Your task to perform on an android device: open a new tab in the chrome app Image 0: 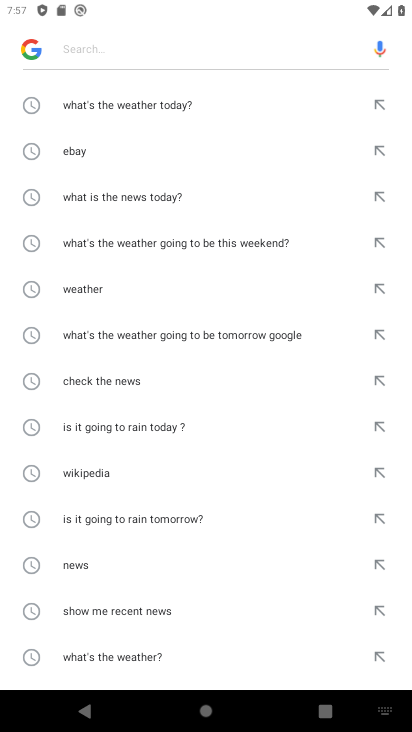
Step 0: press home button
Your task to perform on an android device: open a new tab in the chrome app Image 1: 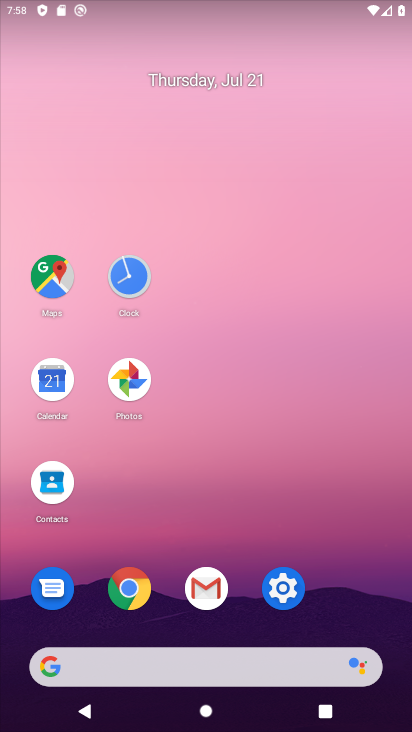
Step 1: click (129, 587)
Your task to perform on an android device: open a new tab in the chrome app Image 2: 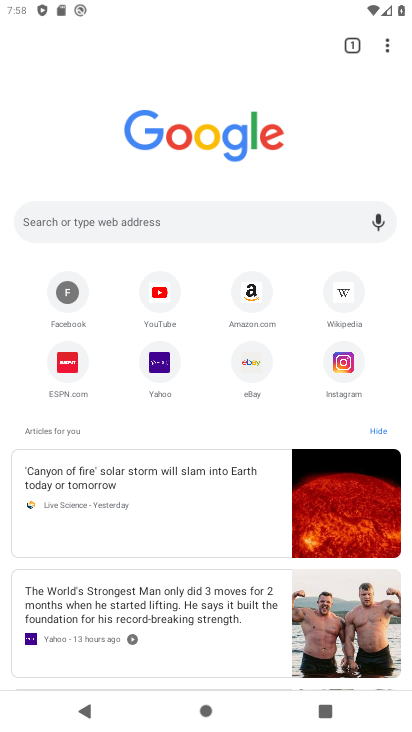
Step 2: click (388, 47)
Your task to perform on an android device: open a new tab in the chrome app Image 3: 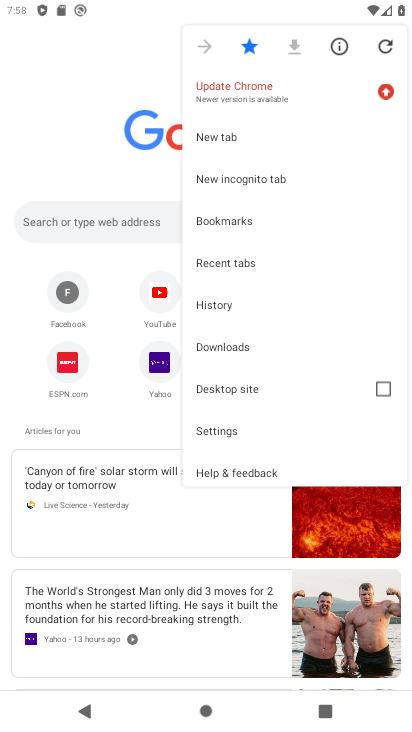
Step 3: click (221, 134)
Your task to perform on an android device: open a new tab in the chrome app Image 4: 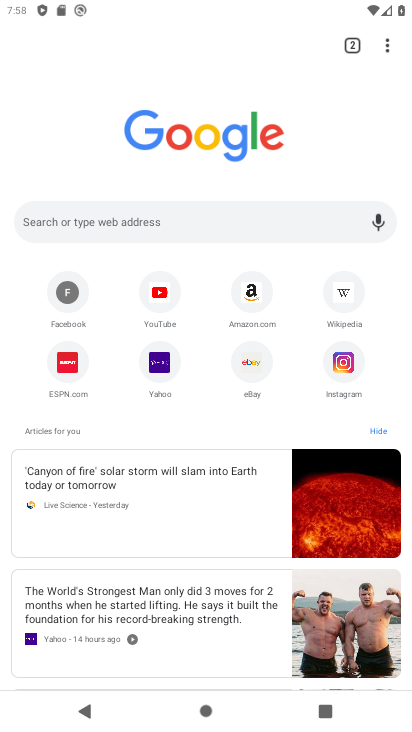
Step 4: task complete